Your task to perform on an android device: When is my next appointment? Image 0: 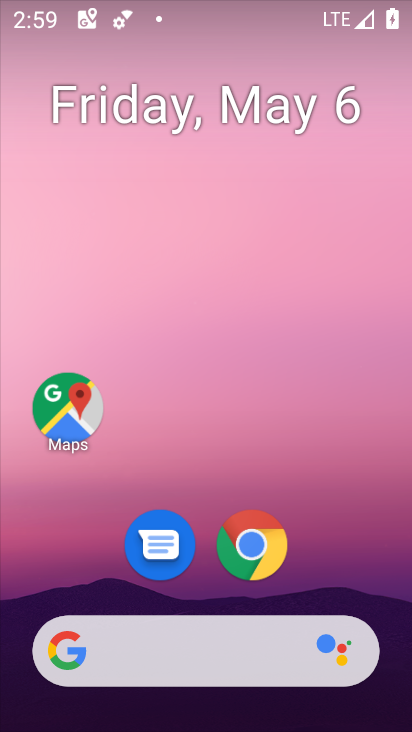
Step 0: drag from (411, 560) to (411, 105)
Your task to perform on an android device: When is my next appointment? Image 1: 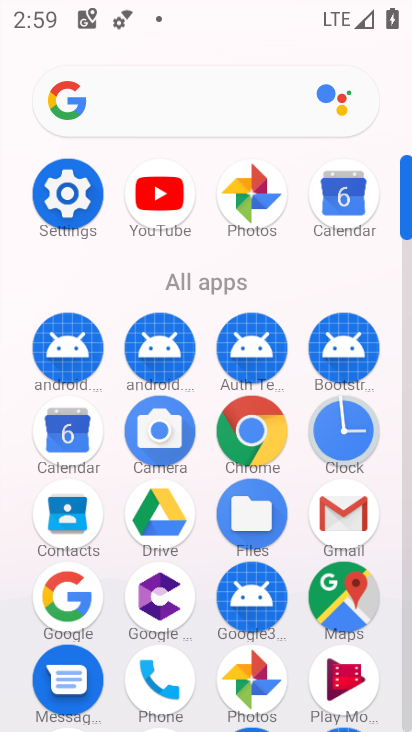
Step 1: click (80, 447)
Your task to perform on an android device: When is my next appointment? Image 2: 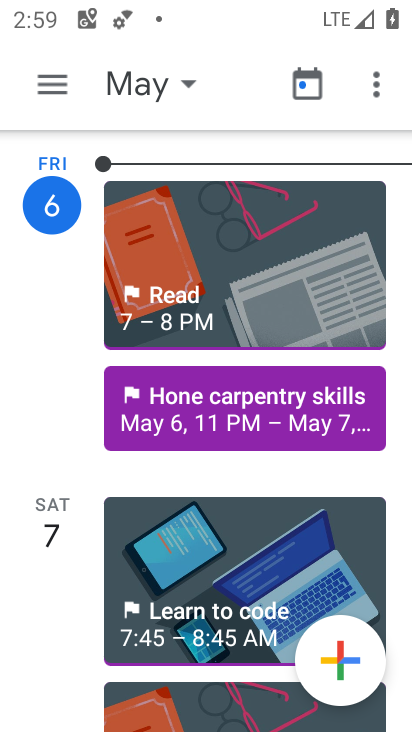
Step 2: click (35, 73)
Your task to perform on an android device: When is my next appointment? Image 3: 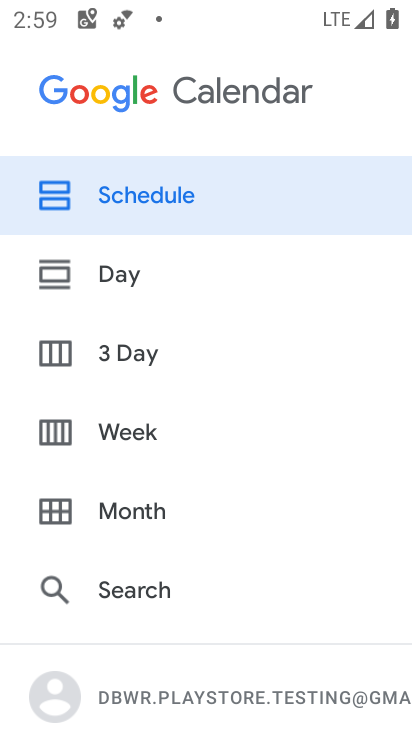
Step 3: task complete